Your task to perform on an android device: Open maps Image 0: 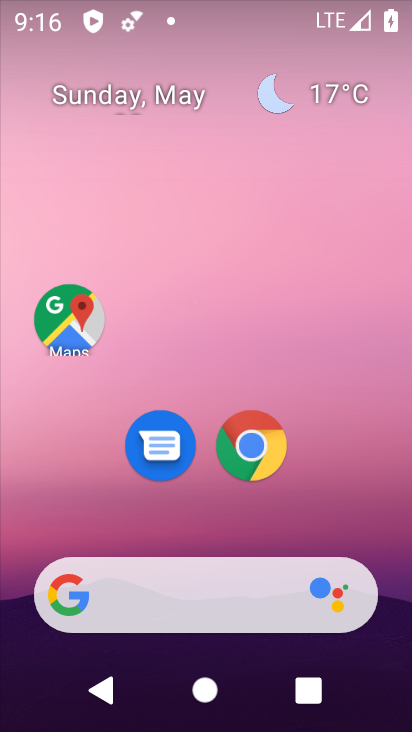
Step 0: click (256, 186)
Your task to perform on an android device: Open maps Image 1: 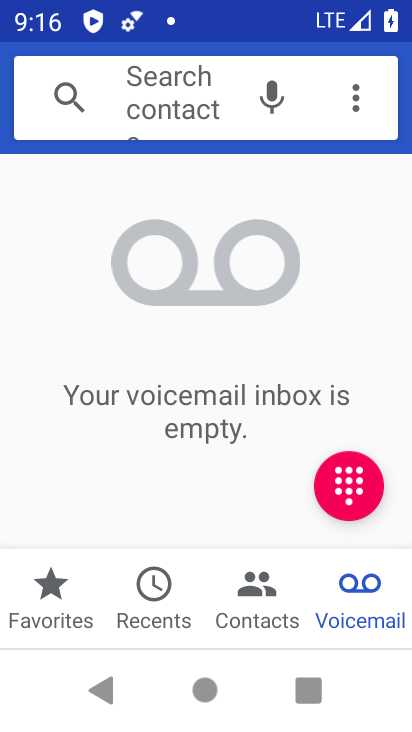
Step 1: drag from (248, 471) to (347, 10)
Your task to perform on an android device: Open maps Image 2: 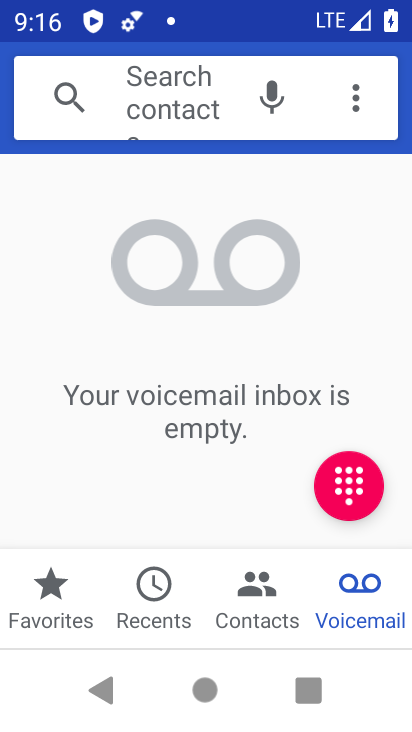
Step 2: press home button
Your task to perform on an android device: Open maps Image 3: 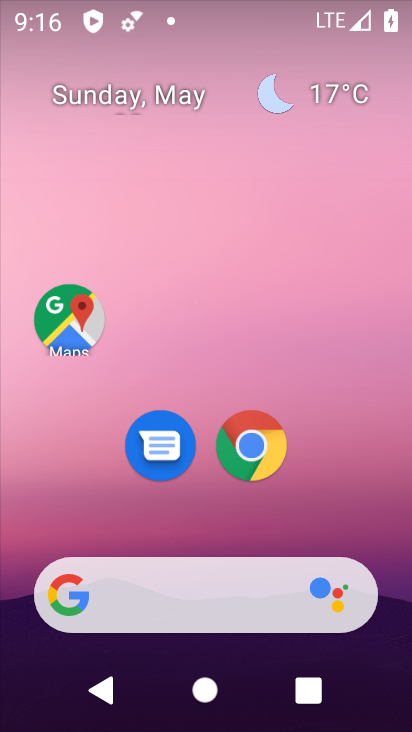
Step 3: click (49, 279)
Your task to perform on an android device: Open maps Image 4: 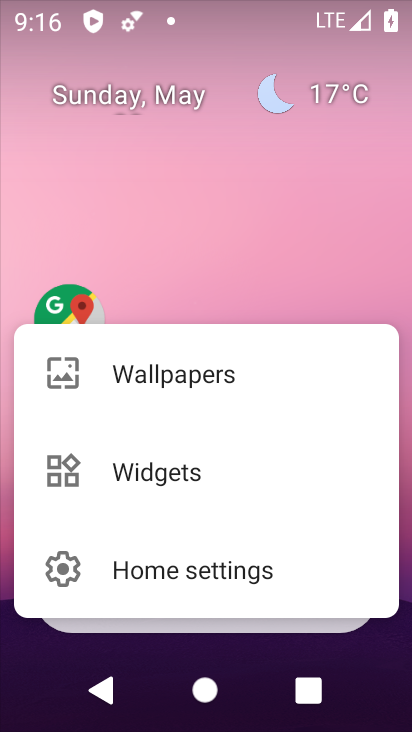
Step 4: click (194, 248)
Your task to perform on an android device: Open maps Image 5: 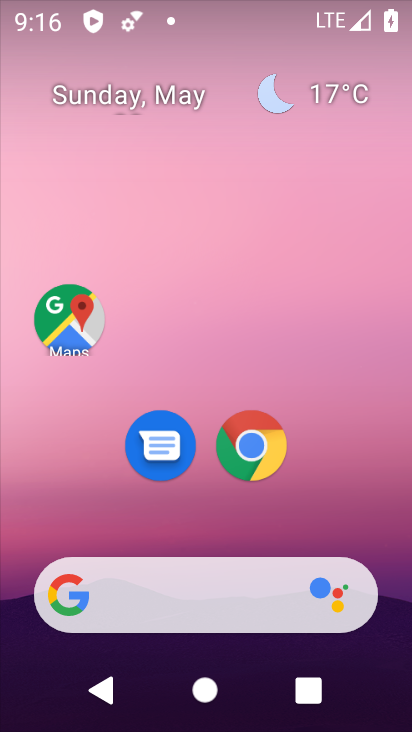
Step 5: click (76, 310)
Your task to perform on an android device: Open maps Image 6: 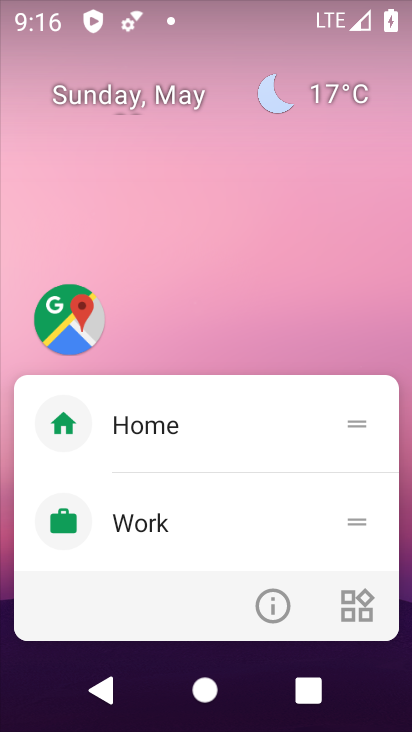
Step 6: click (269, 598)
Your task to perform on an android device: Open maps Image 7: 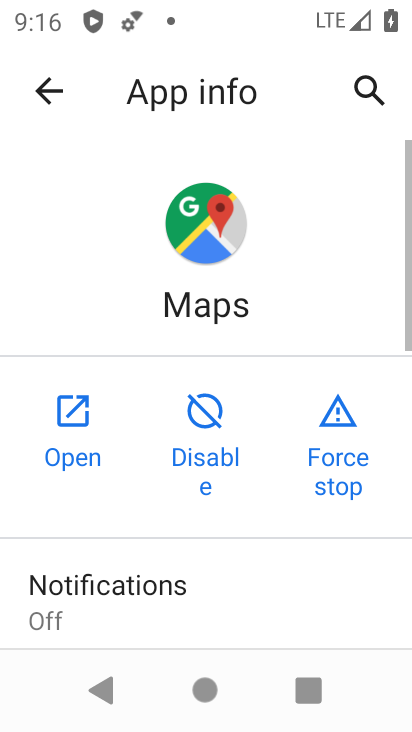
Step 7: click (52, 434)
Your task to perform on an android device: Open maps Image 8: 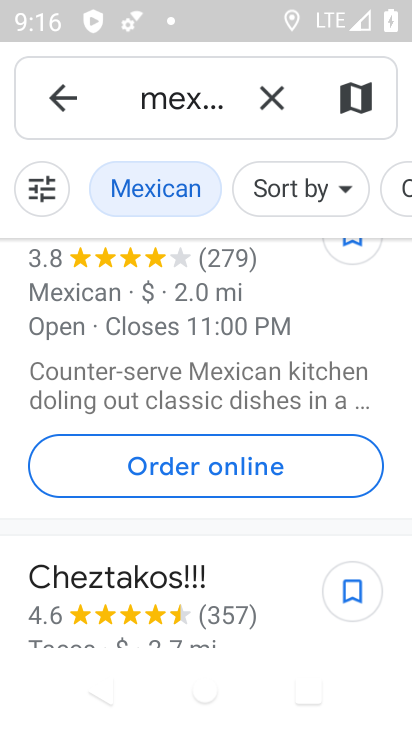
Step 8: task complete